Your task to perform on an android device: Go to location settings Image 0: 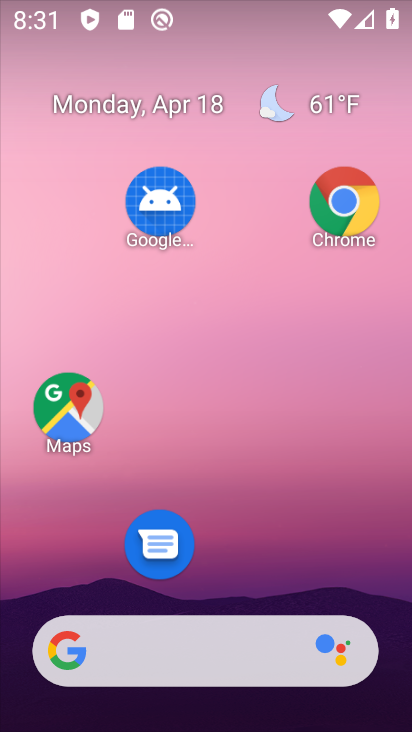
Step 0: drag from (239, 611) to (203, 29)
Your task to perform on an android device: Go to location settings Image 1: 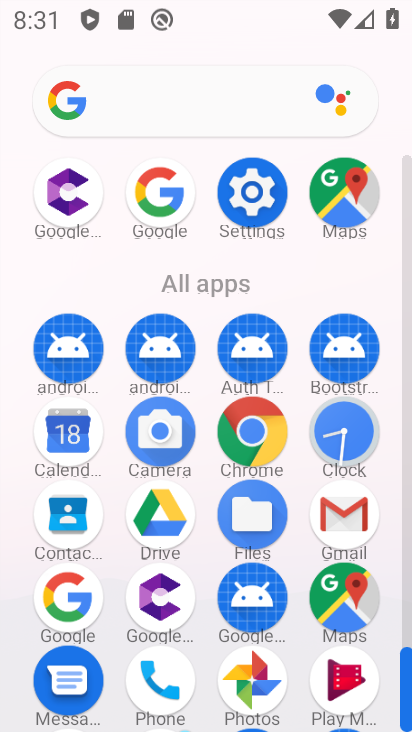
Step 1: click (245, 215)
Your task to perform on an android device: Go to location settings Image 2: 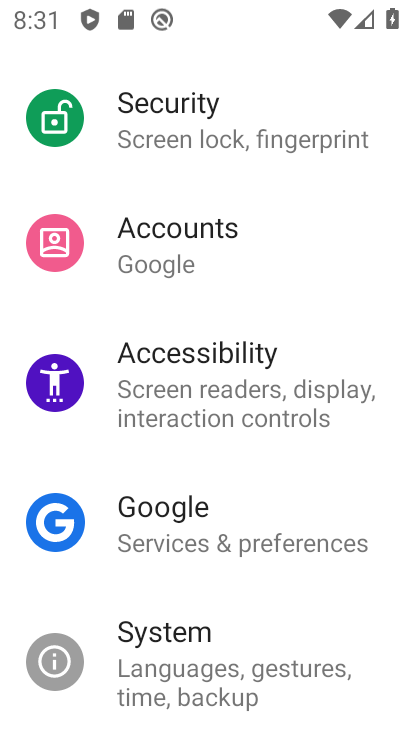
Step 2: drag from (285, 200) to (273, 712)
Your task to perform on an android device: Go to location settings Image 3: 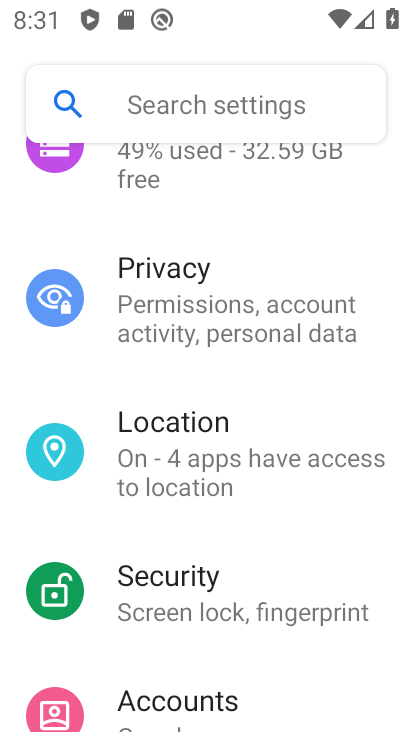
Step 3: click (212, 449)
Your task to perform on an android device: Go to location settings Image 4: 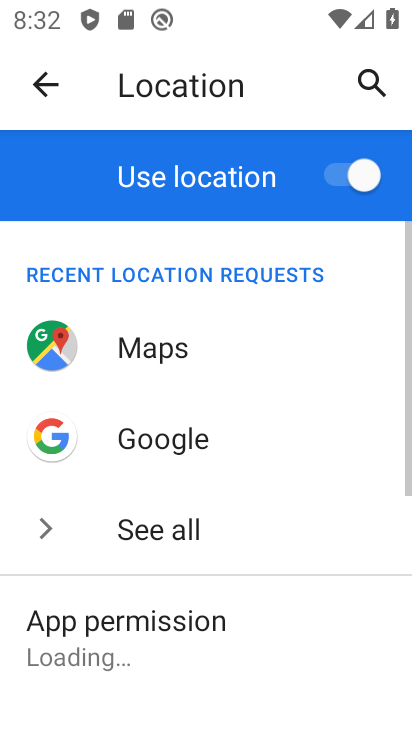
Step 4: drag from (239, 616) to (234, 252)
Your task to perform on an android device: Go to location settings Image 5: 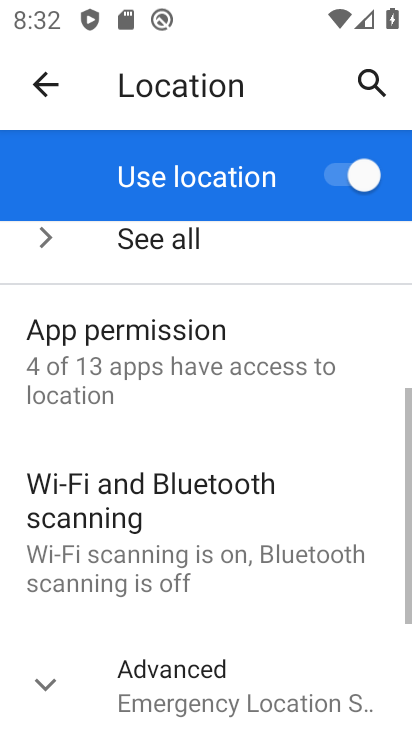
Step 5: click (173, 684)
Your task to perform on an android device: Go to location settings Image 6: 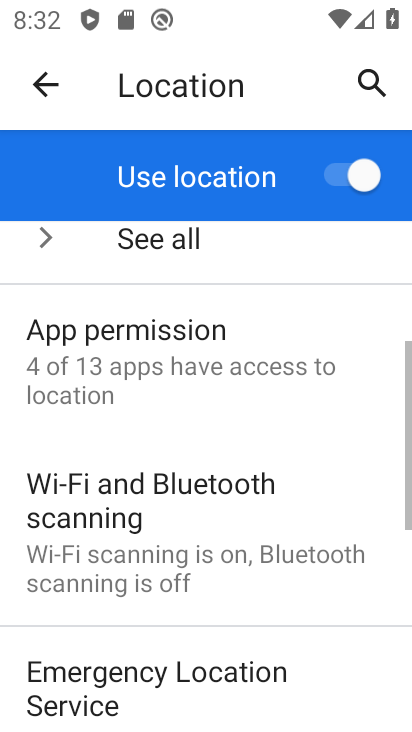
Step 6: task complete